Your task to perform on an android device: Do I have any events this weekend? Image 0: 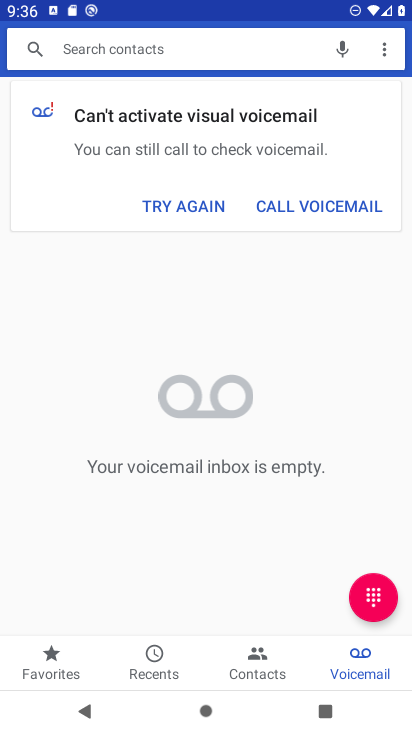
Step 0: press home button
Your task to perform on an android device: Do I have any events this weekend? Image 1: 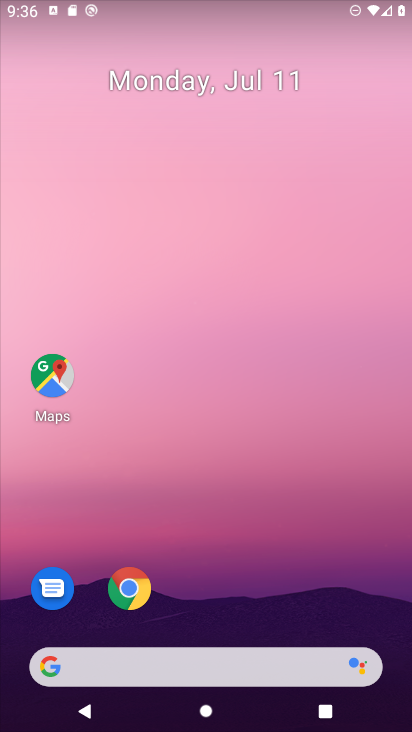
Step 1: drag from (394, 661) to (269, 4)
Your task to perform on an android device: Do I have any events this weekend? Image 2: 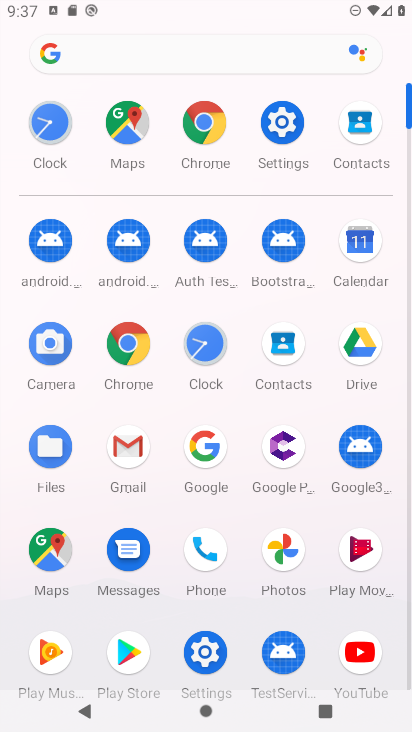
Step 2: click (357, 242)
Your task to perform on an android device: Do I have any events this weekend? Image 3: 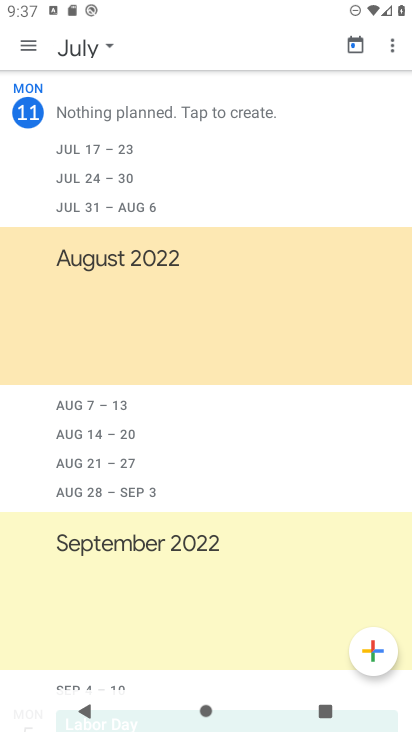
Step 3: task complete